Your task to perform on an android device: Open internet settings Image 0: 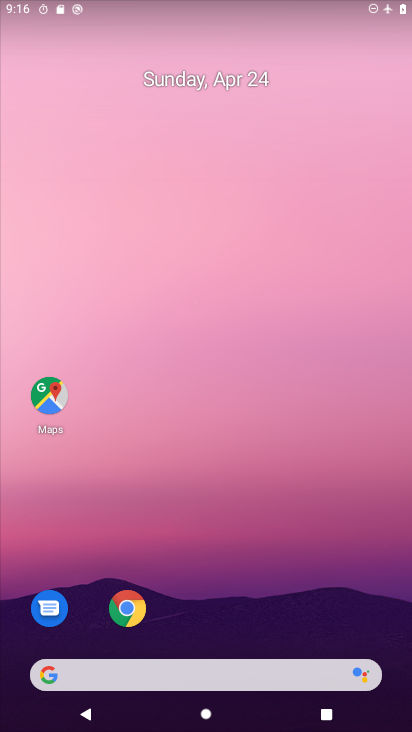
Step 0: drag from (244, 458) to (171, 41)
Your task to perform on an android device: Open internet settings Image 1: 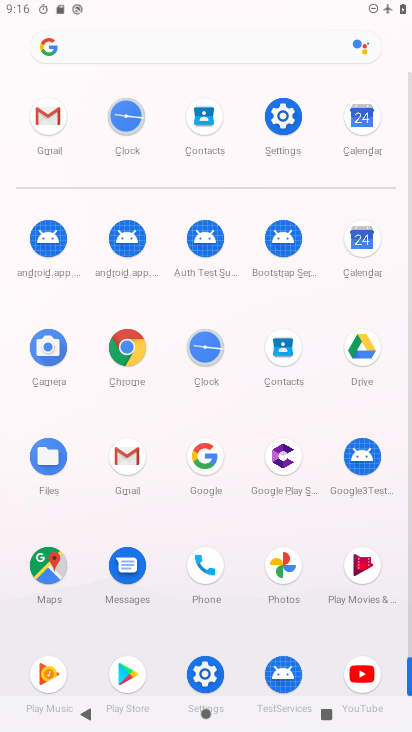
Step 1: click (279, 114)
Your task to perform on an android device: Open internet settings Image 2: 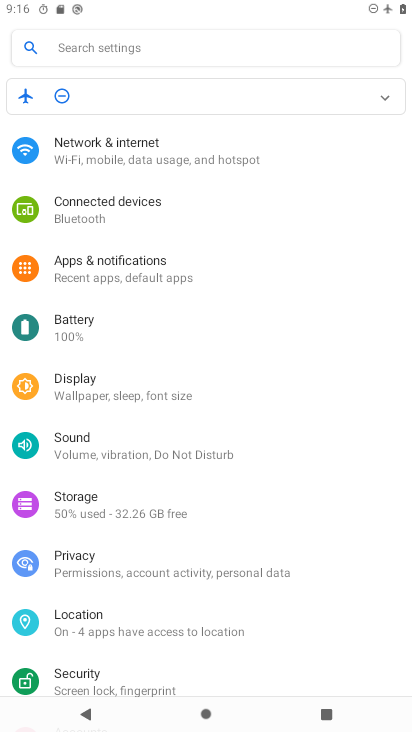
Step 2: click (207, 155)
Your task to perform on an android device: Open internet settings Image 3: 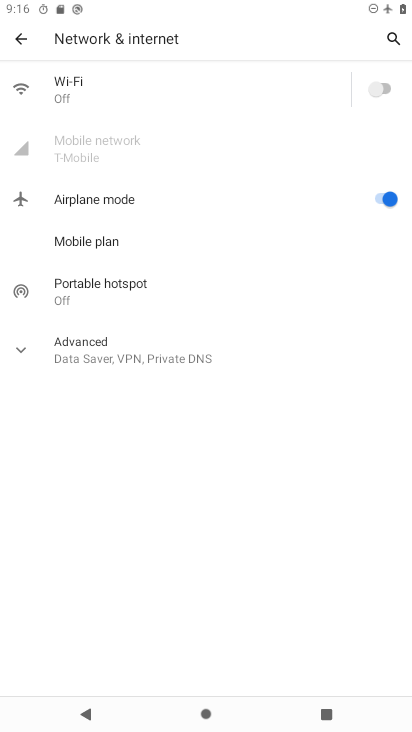
Step 3: task complete